Your task to perform on an android device: open sync settings in chrome Image 0: 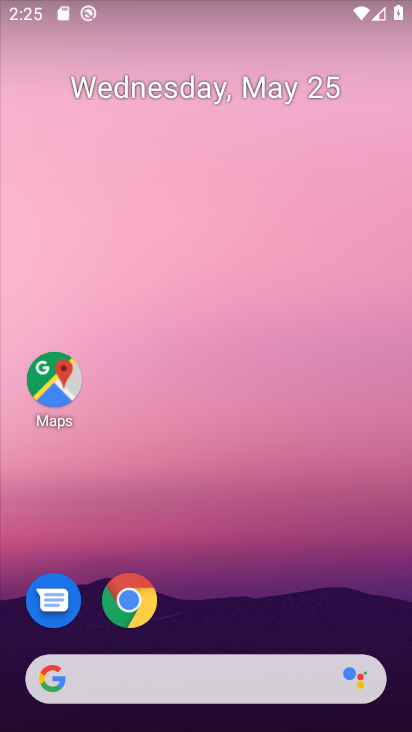
Step 0: click (15, 603)
Your task to perform on an android device: open sync settings in chrome Image 1: 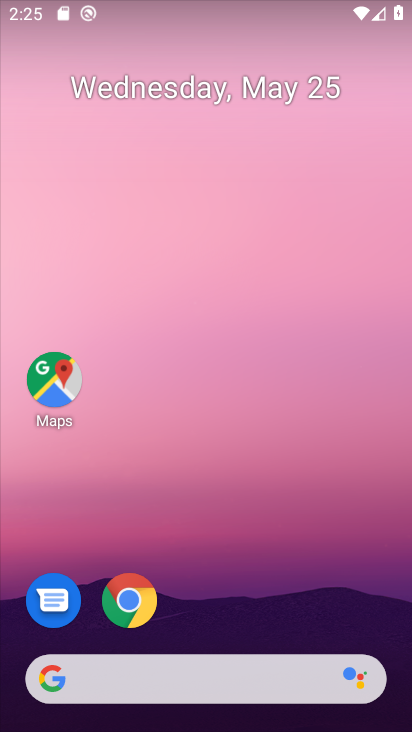
Step 1: click (144, 612)
Your task to perform on an android device: open sync settings in chrome Image 2: 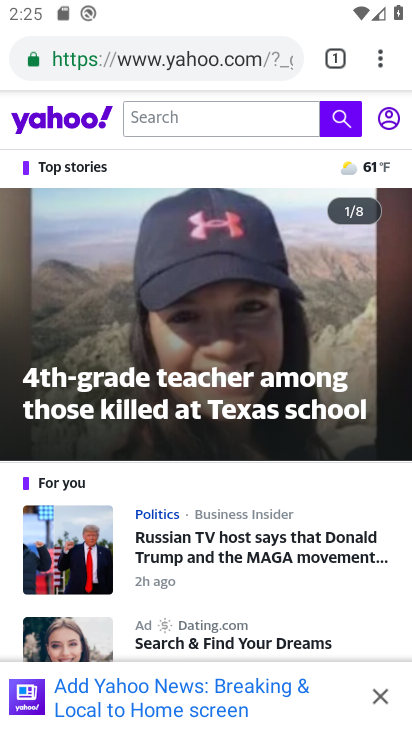
Step 2: drag from (381, 52) to (225, 640)
Your task to perform on an android device: open sync settings in chrome Image 3: 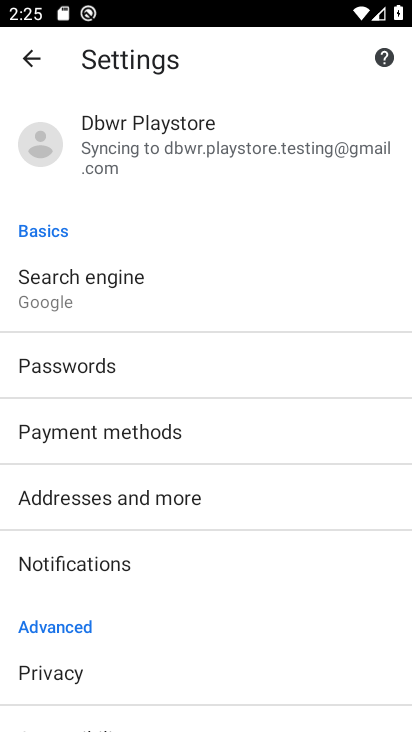
Step 3: click (183, 144)
Your task to perform on an android device: open sync settings in chrome Image 4: 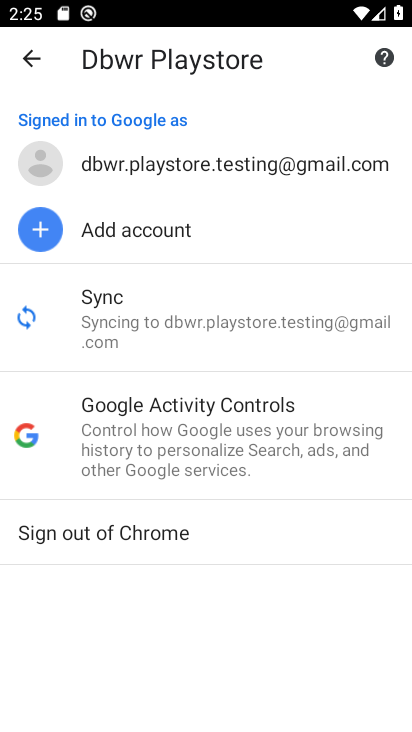
Step 4: click (166, 343)
Your task to perform on an android device: open sync settings in chrome Image 5: 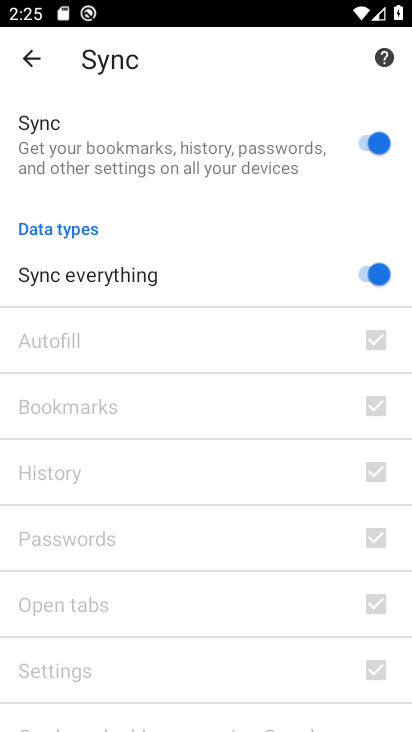
Step 5: task complete